Your task to perform on an android device: Go to Google maps Image 0: 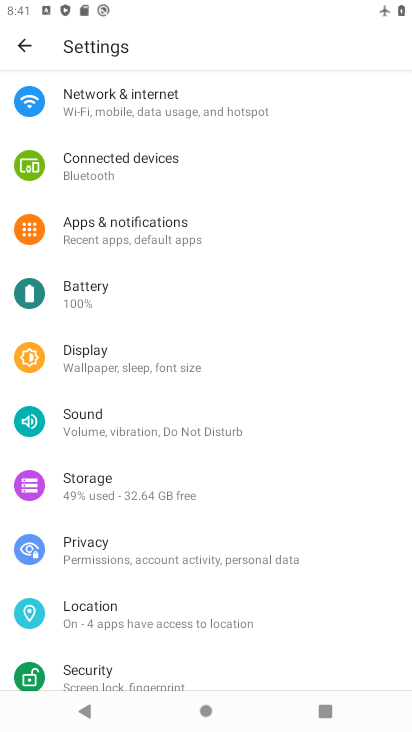
Step 0: press home button
Your task to perform on an android device: Go to Google maps Image 1: 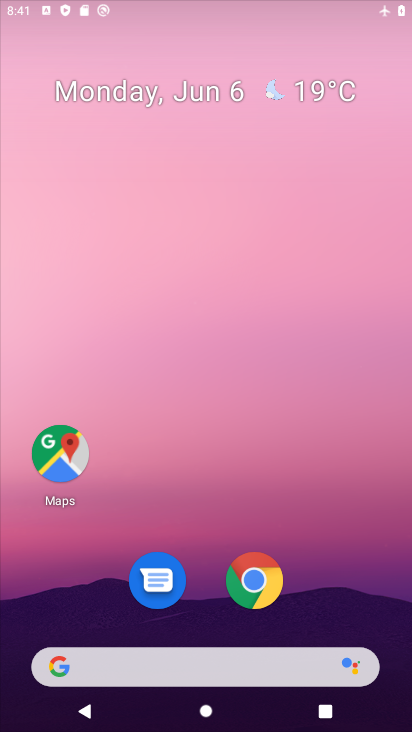
Step 1: drag from (155, 653) to (144, 137)
Your task to perform on an android device: Go to Google maps Image 2: 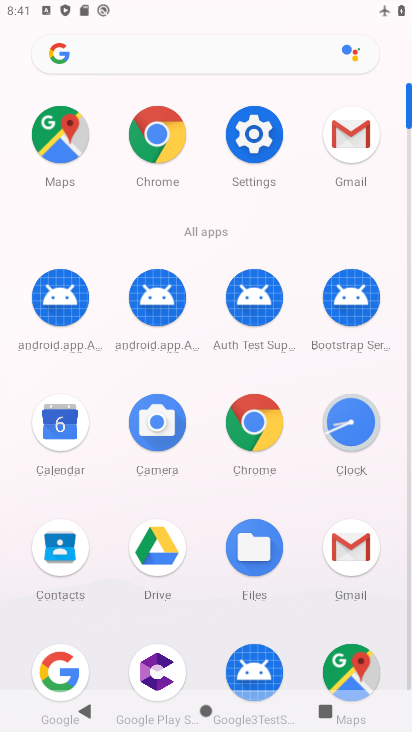
Step 2: drag from (276, 638) to (314, 457)
Your task to perform on an android device: Go to Google maps Image 3: 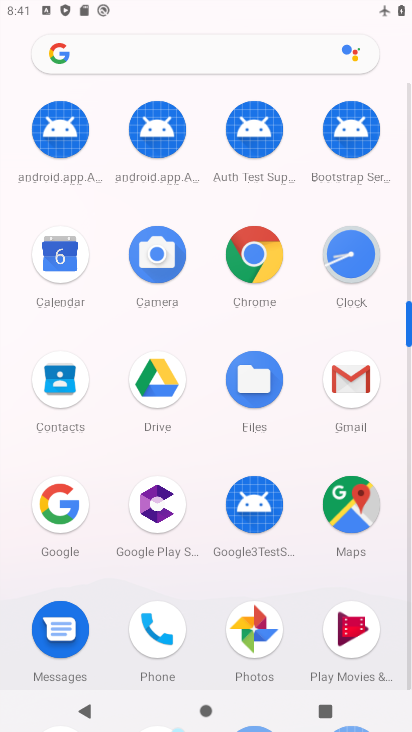
Step 3: click (343, 510)
Your task to perform on an android device: Go to Google maps Image 4: 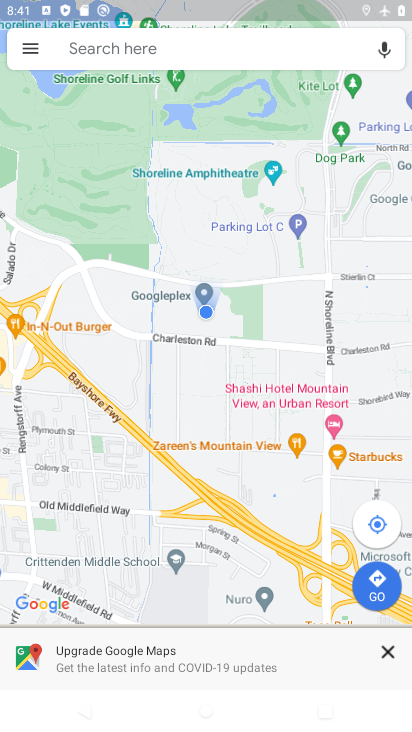
Step 4: task complete